Your task to perform on an android device: Open eBay Image 0: 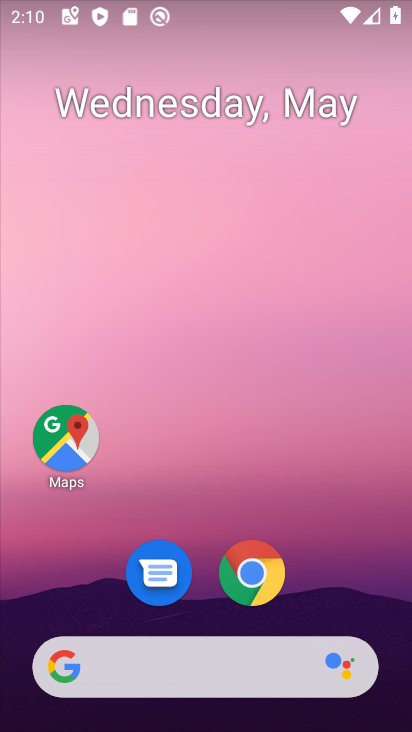
Step 0: click (248, 565)
Your task to perform on an android device: Open eBay Image 1: 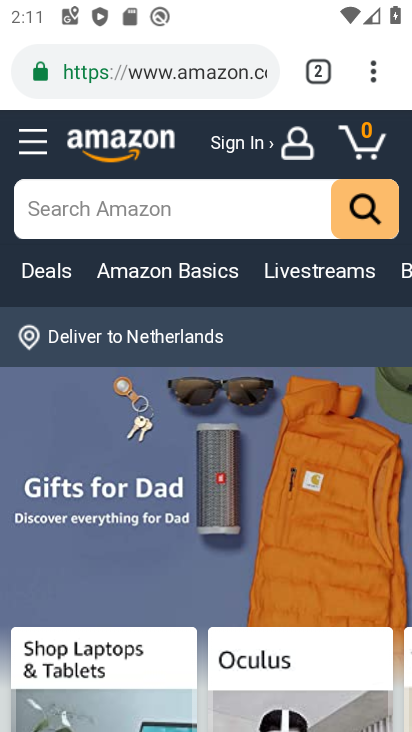
Step 1: click (188, 84)
Your task to perform on an android device: Open eBay Image 2: 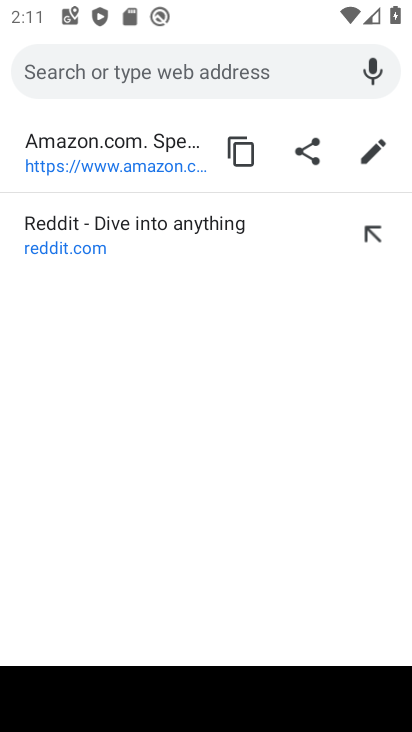
Step 2: type "ebay"
Your task to perform on an android device: Open eBay Image 3: 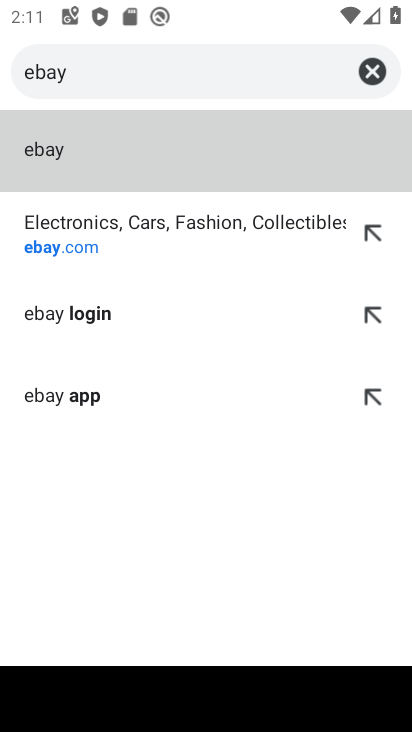
Step 3: click (76, 125)
Your task to perform on an android device: Open eBay Image 4: 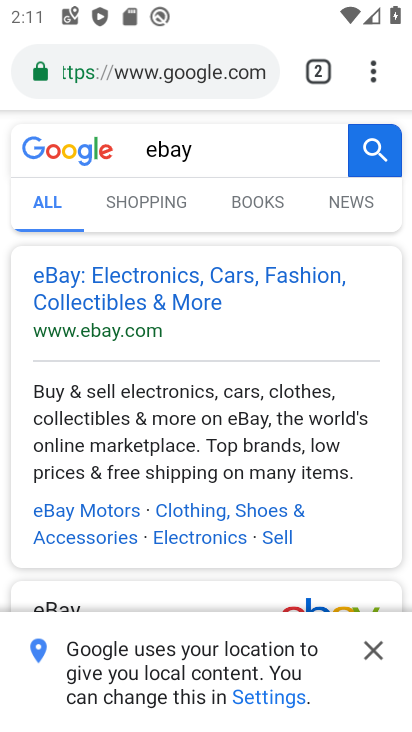
Step 4: click (93, 291)
Your task to perform on an android device: Open eBay Image 5: 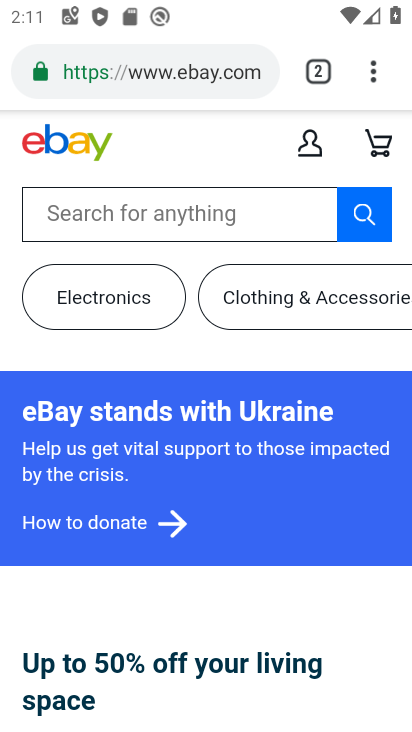
Step 5: task complete